Your task to perform on an android device: Is it going to rain tomorrow? Image 0: 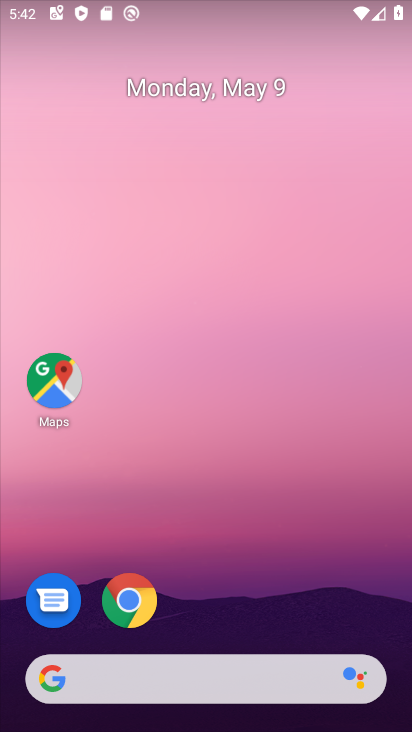
Step 0: drag from (218, 603) to (212, 9)
Your task to perform on an android device: Is it going to rain tomorrow? Image 1: 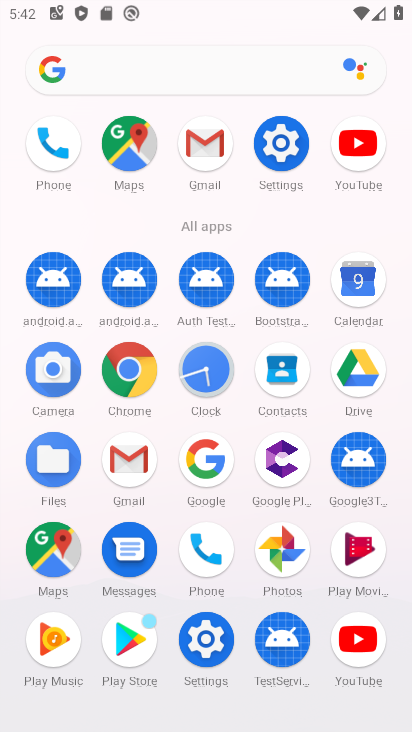
Step 1: click (143, 50)
Your task to perform on an android device: Is it going to rain tomorrow? Image 2: 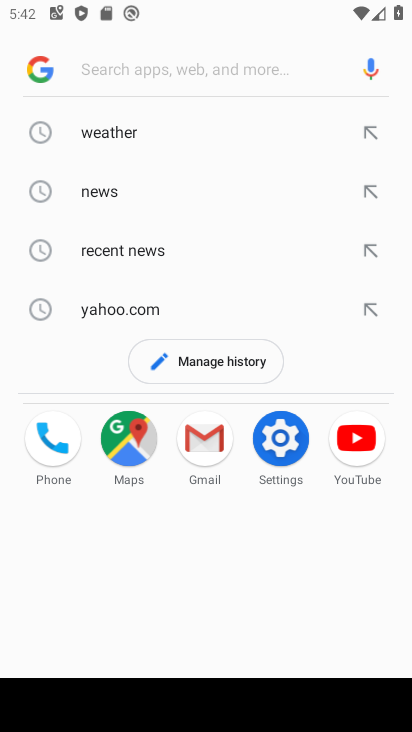
Step 2: click (137, 131)
Your task to perform on an android device: Is it going to rain tomorrow? Image 3: 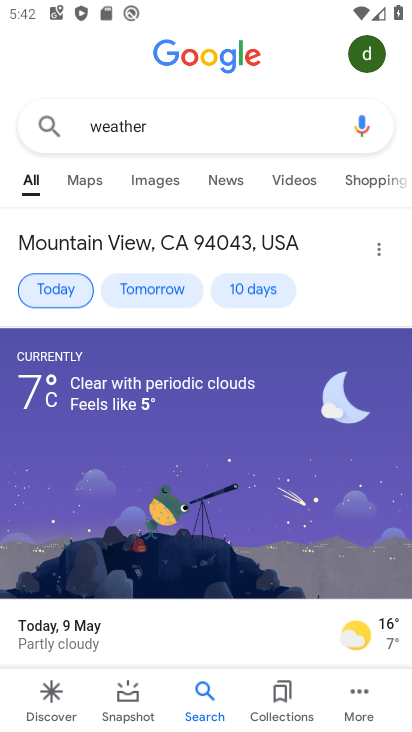
Step 3: click (156, 300)
Your task to perform on an android device: Is it going to rain tomorrow? Image 4: 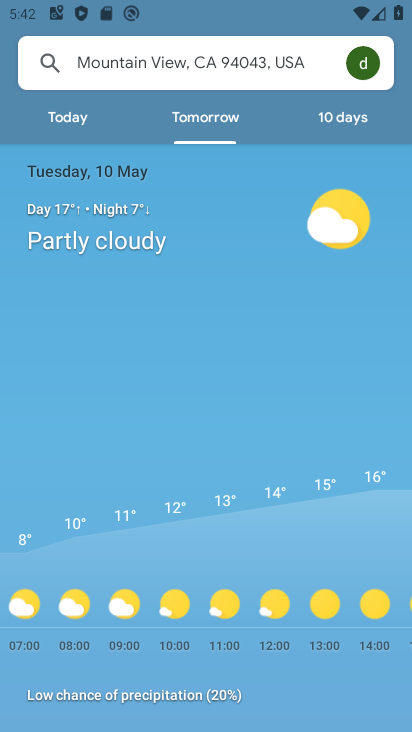
Step 4: task complete